Your task to perform on an android device: toggle notifications settings in the gmail app Image 0: 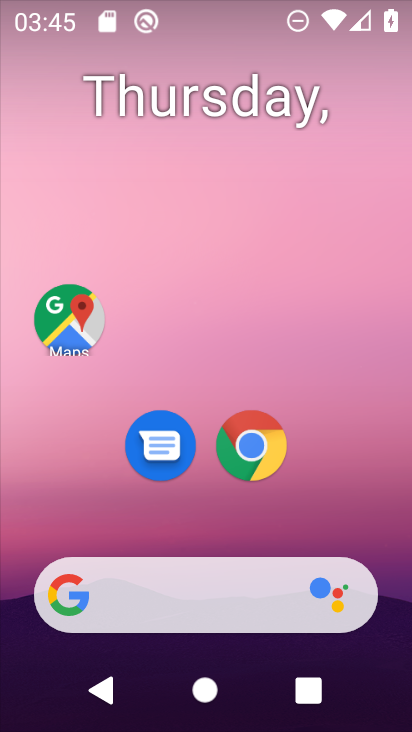
Step 0: drag from (360, 549) to (332, 17)
Your task to perform on an android device: toggle notifications settings in the gmail app Image 1: 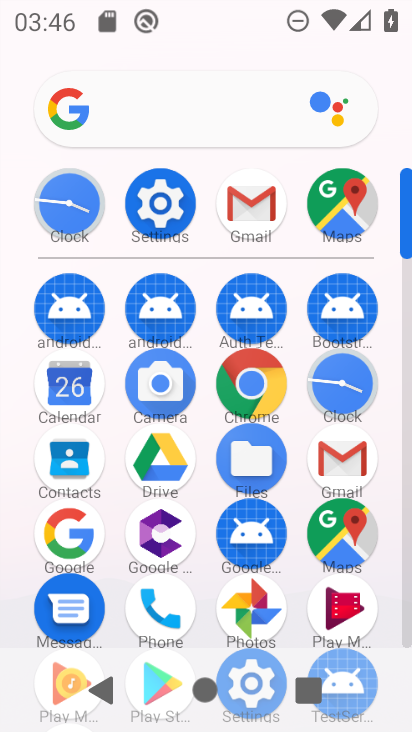
Step 1: click (256, 209)
Your task to perform on an android device: toggle notifications settings in the gmail app Image 2: 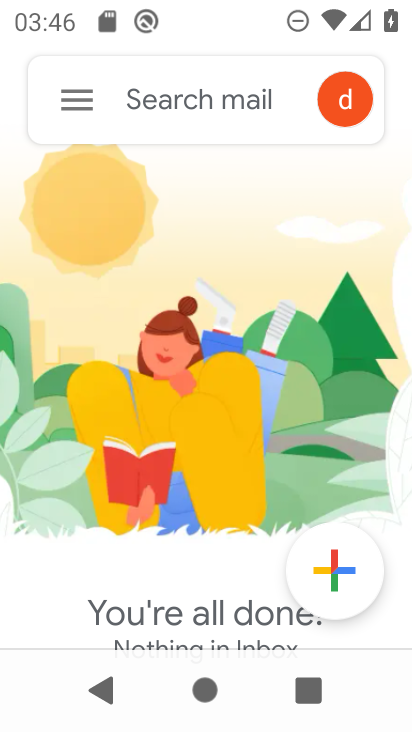
Step 2: click (79, 98)
Your task to perform on an android device: toggle notifications settings in the gmail app Image 3: 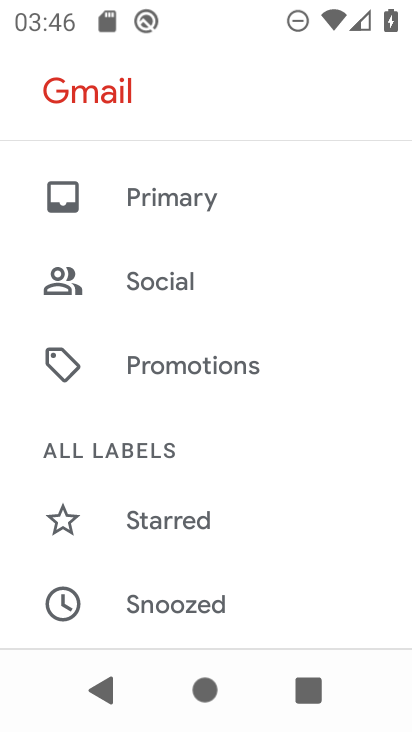
Step 3: drag from (237, 487) to (221, 52)
Your task to perform on an android device: toggle notifications settings in the gmail app Image 4: 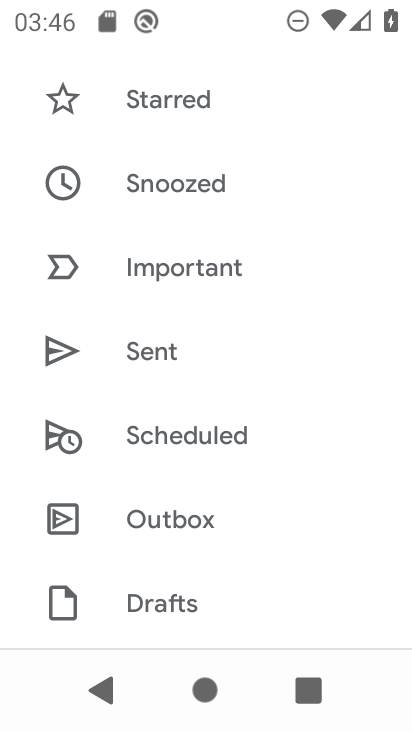
Step 4: drag from (205, 470) to (206, 55)
Your task to perform on an android device: toggle notifications settings in the gmail app Image 5: 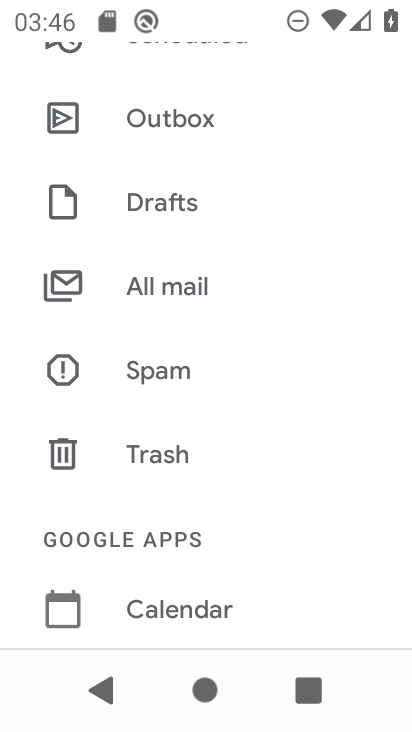
Step 5: drag from (191, 551) to (183, 89)
Your task to perform on an android device: toggle notifications settings in the gmail app Image 6: 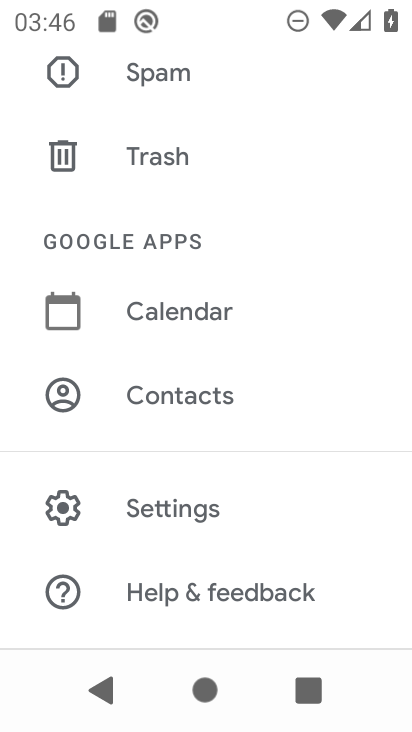
Step 6: click (176, 509)
Your task to perform on an android device: toggle notifications settings in the gmail app Image 7: 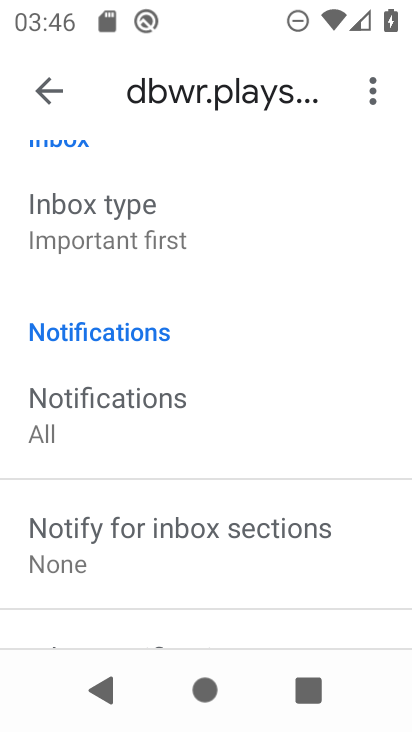
Step 7: click (37, 91)
Your task to perform on an android device: toggle notifications settings in the gmail app Image 8: 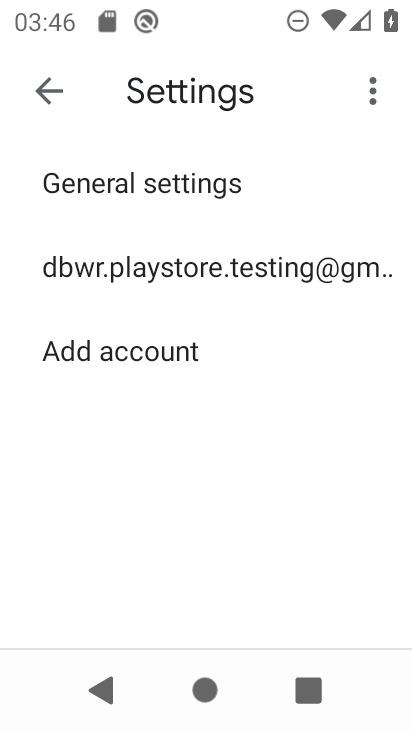
Step 8: click (128, 187)
Your task to perform on an android device: toggle notifications settings in the gmail app Image 9: 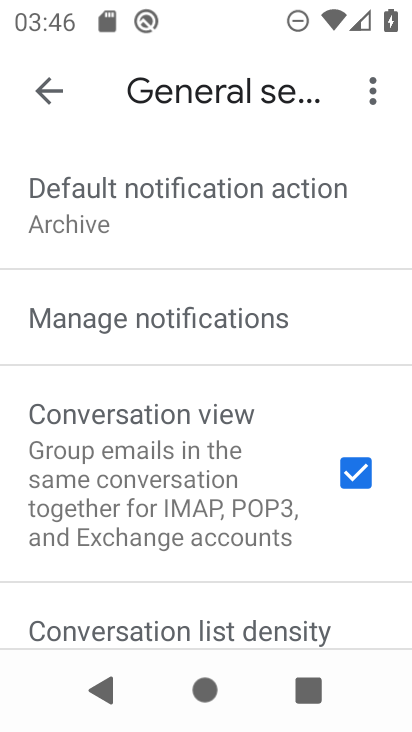
Step 9: click (137, 323)
Your task to perform on an android device: toggle notifications settings in the gmail app Image 10: 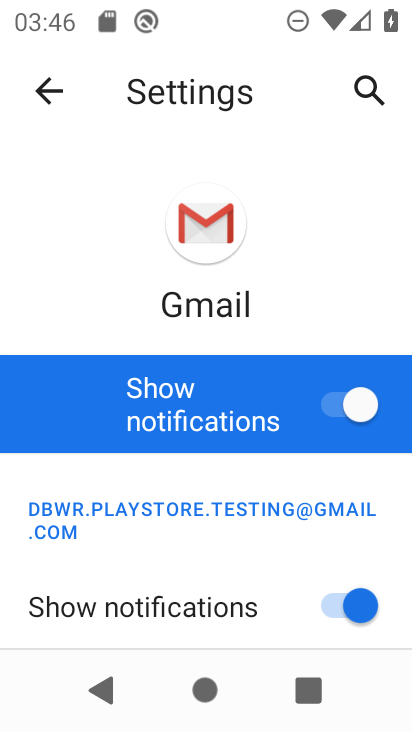
Step 10: click (366, 434)
Your task to perform on an android device: toggle notifications settings in the gmail app Image 11: 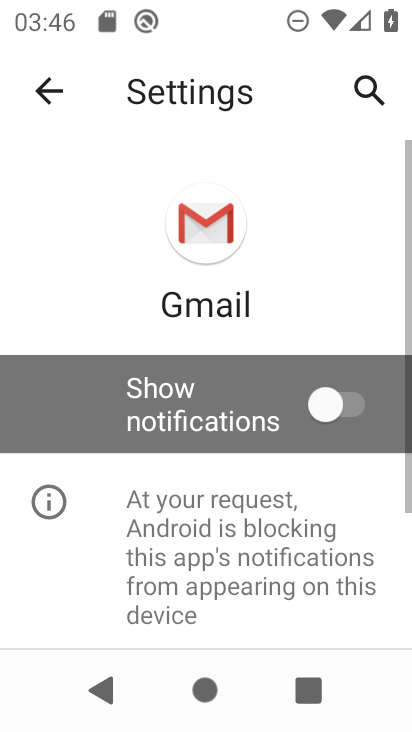
Step 11: task complete